Your task to perform on an android device: toggle notification dots Image 0: 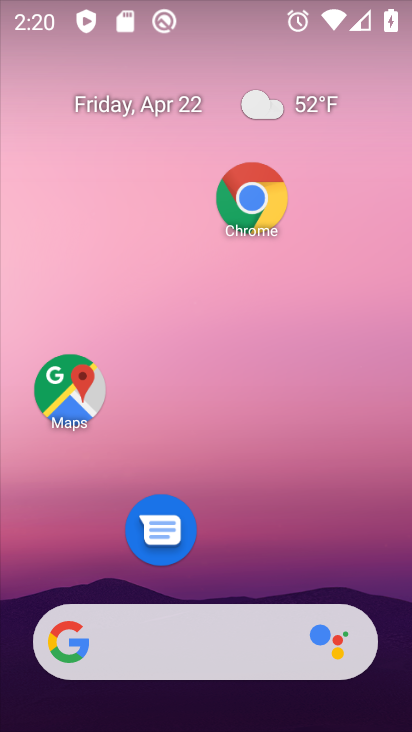
Step 0: click (249, 191)
Your task to perform on an android device: toggle notification dots Image 1: 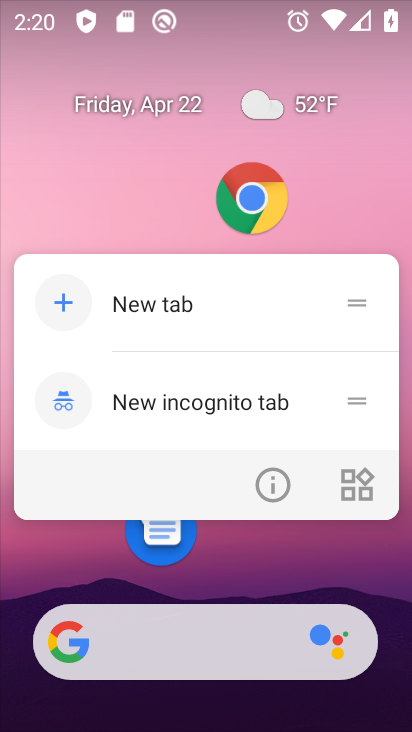
Step 1: click (294, 122)
Your task to perform on an android device: toggle notification dots Image 2: 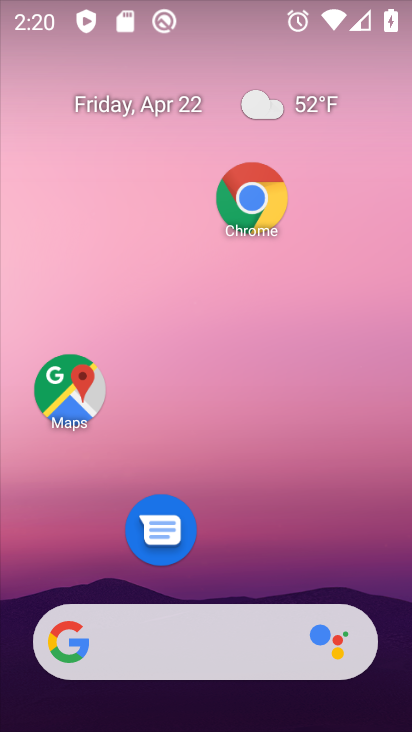
Step 2: drag from (214, 572) to (219, 3)
Your task to perform on an android device: toggle notification dots Image 3: 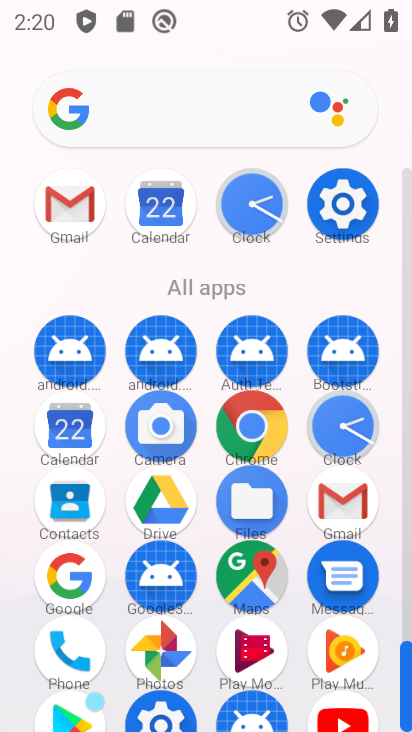
Step 3: click (167, 709)
Your task to perform on an android device: toggle notification dots Image 4: 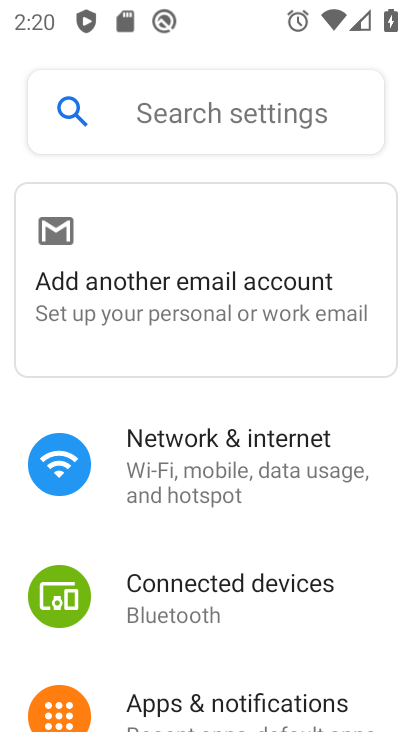
Step 4: click (238, 691)
Your task to perform on an android device: toggle notification dots Image 5: 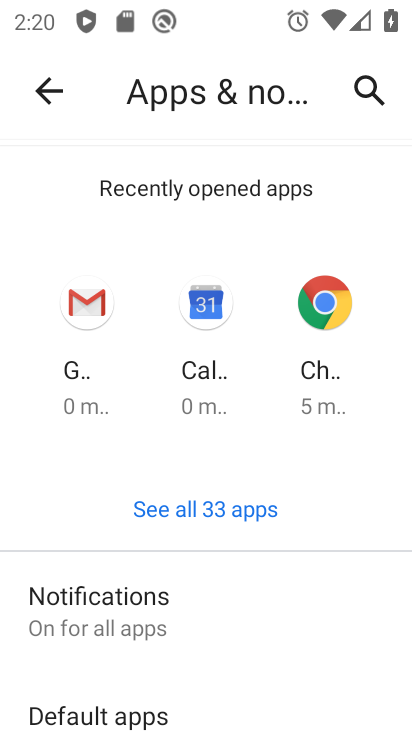
Step 5: click (174, 609)
Your task to perform on an android device: toggle notification dots Image 6: 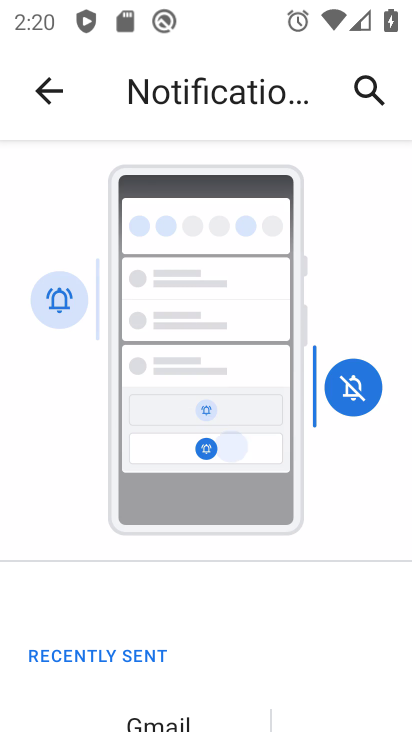
Step 6: drag from (198, 657) to (201, 128)
Your task to perform on an android device: toggle notification dots Image 7: 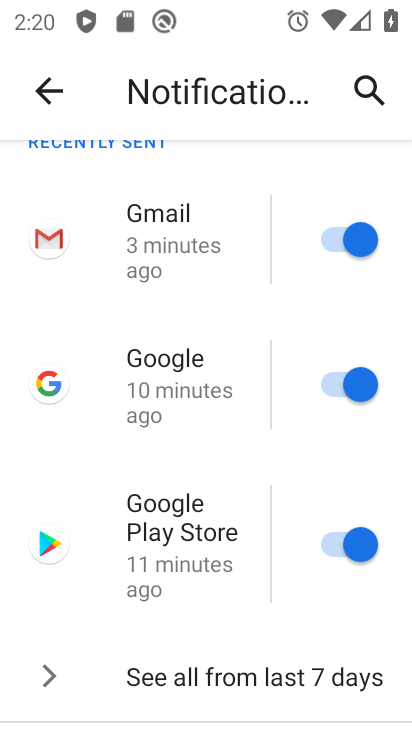
Step 7: drag from (186, 608) to (248, 264)
Your task to perform on an android device: toggle notification dots Image 8: 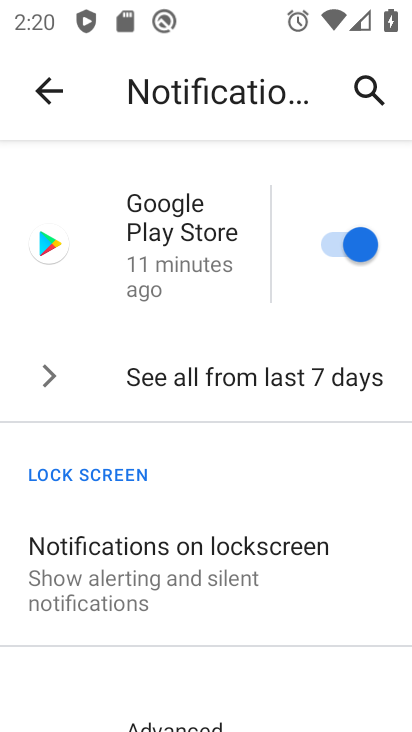
Step 8: drag from (180, 666) to (186, 338)
Your task to perform on an android device: toggle notification dots Image 9: 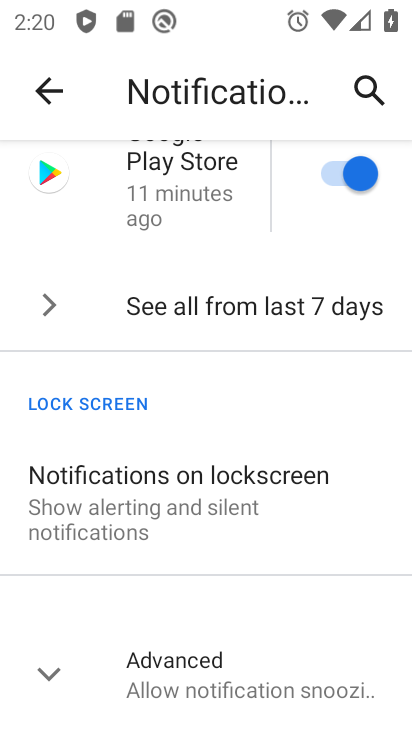
Step 9: click (136, 657)
Your task to perform on an android device: toggle notification dots Image 10: 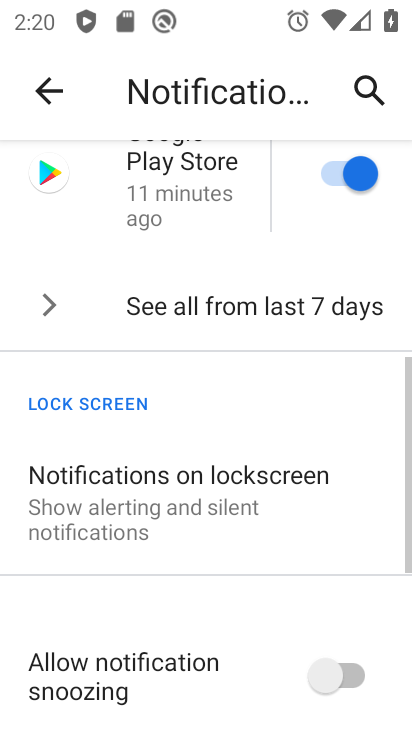
Step 10: drag from (158, 658) to (175, 444)
Your task to perform on an android device: toggle notification dots Image 11: 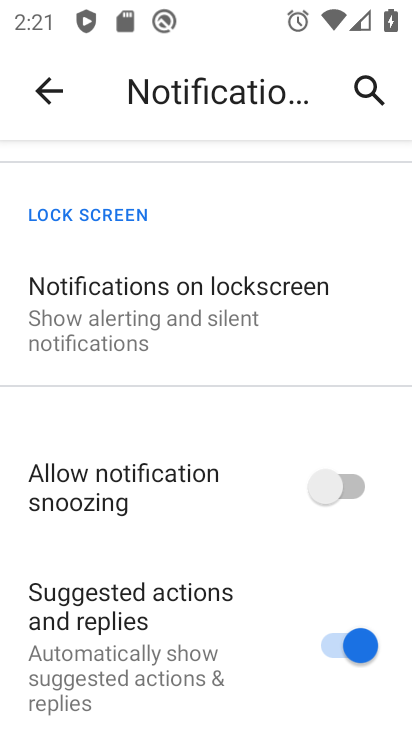
Step 11: drag from (167, 660) to (199, 368)
Your task to perform on an android device: toggle notification dots Image 12: 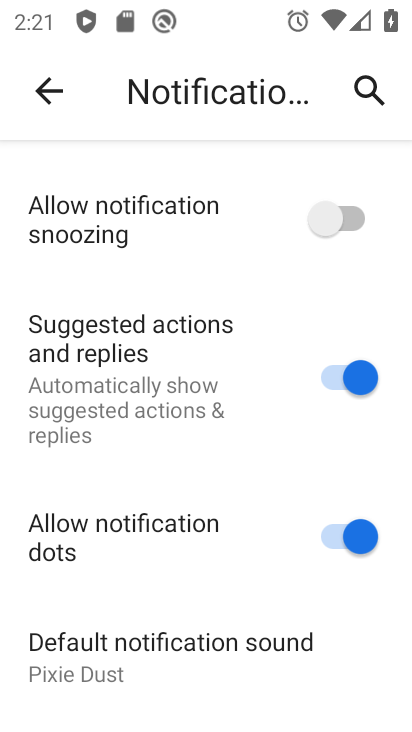
Step 12: click (325, 526)
Your task to perform on an android device: toggle notification dots Image 13: 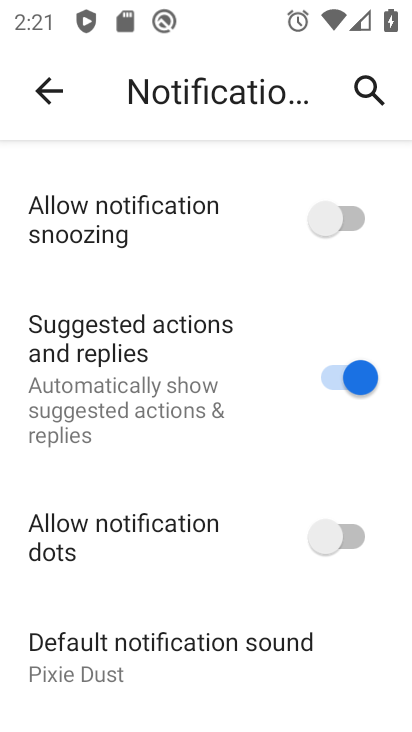
Step 13: task complete